Your task to perform on an android device: turn on wifi Image 0: 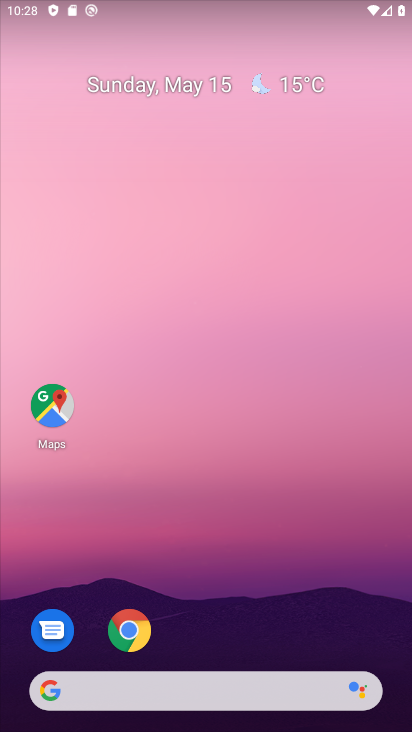
Step 0: drag from (208, 728) to (220, 203)
Your task to perform on an android device: turn on wifi Image 1: 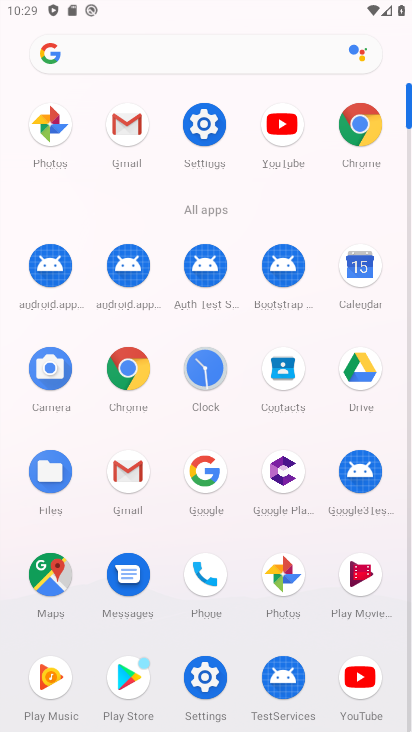
Step 1: click (202, 125)
Your task to perform on an android device: turn on wifi Image 2: 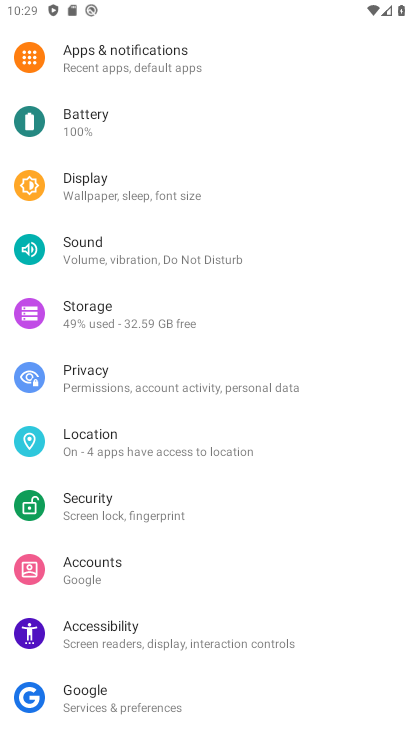
Step 2: drag from (201, 127) to (191, 548)
Your task to perform on an android device: turn on wifi Image 3: 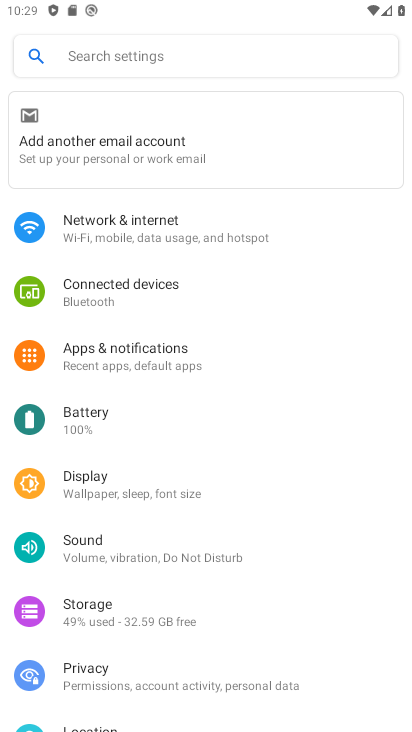
Step 3: click (142, 226)
Your task to perform on an android device: turn on wifi Image 4: 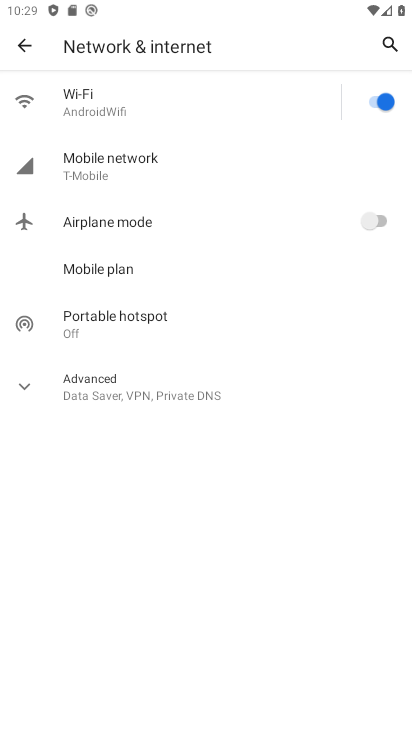
Step 4: click (373, 104)
Your task to perform on an android device: turn on wifi Image 5: 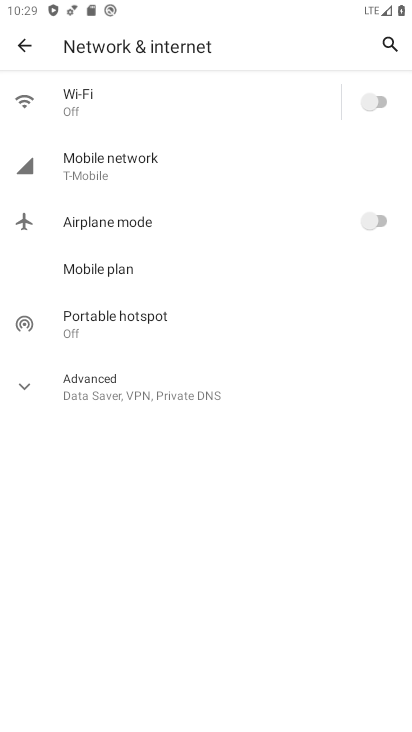
Step 5: click (383, 100)
Your task to perform on an android device: turn on wifi Image 6: 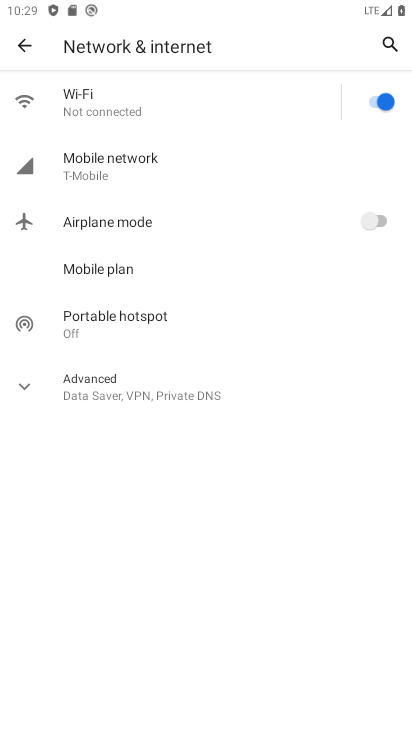
Step 6: task complete